Your task to perform on an android device: toggle javascript in the chrome app Image 0: 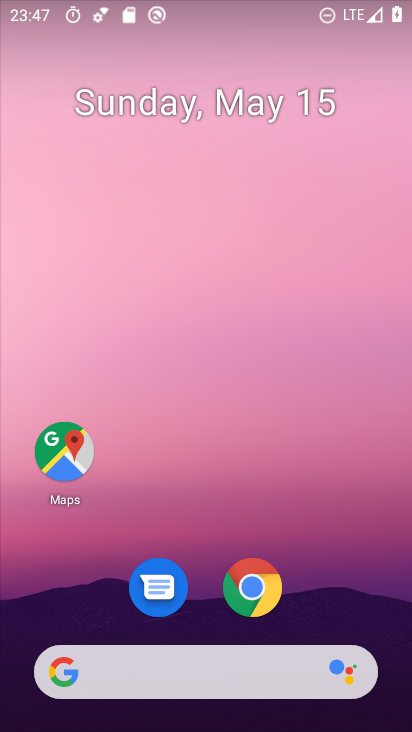
Step 0: click (241, 610)
Your task to perform on an android device: toggle javascript in the chrome app Image 1: 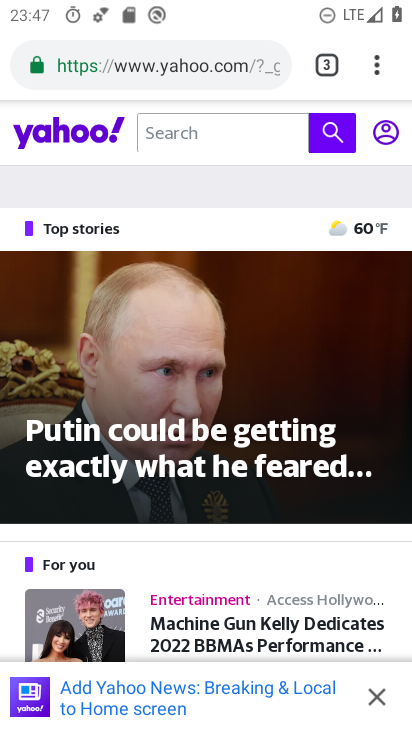
Step 1: drag from (374, 60) to (177, 621)
Your task to perform on an android device: toggle javascript in the chrome app Image 2: 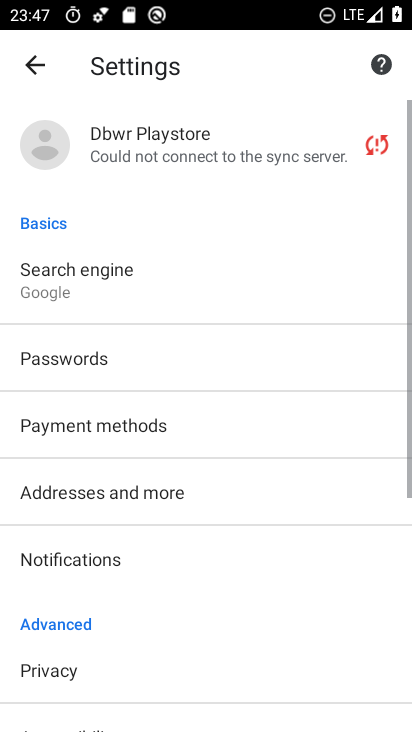
Step 2: drag from (216, 594) to (269, 263)
Your task to perform on an android device: toggle javascript in the chrome app Image 3: 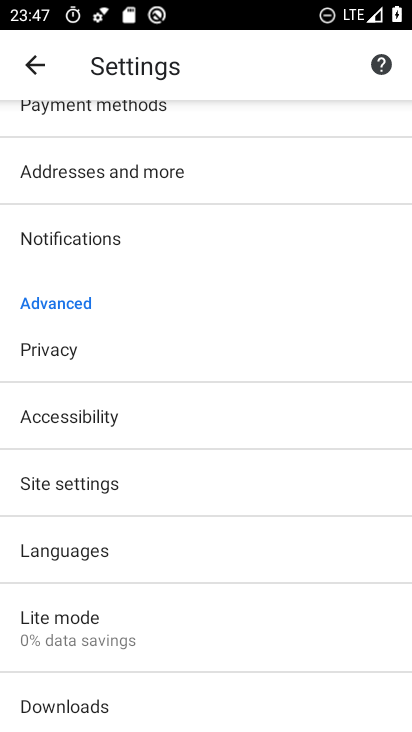
Step 3: click (99, 487)
Your task to perform on an android device: toggle javascript in the chrome app Image 4: 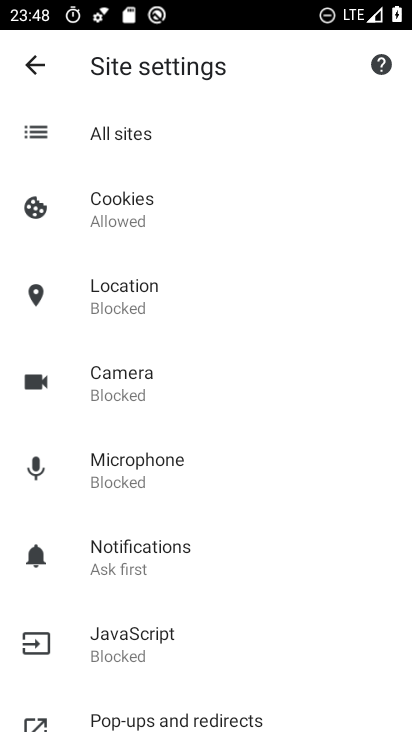
Step 4: click (131, 663)
Your task to perform on an android device: toggle javascript in the chrome app Image 5: 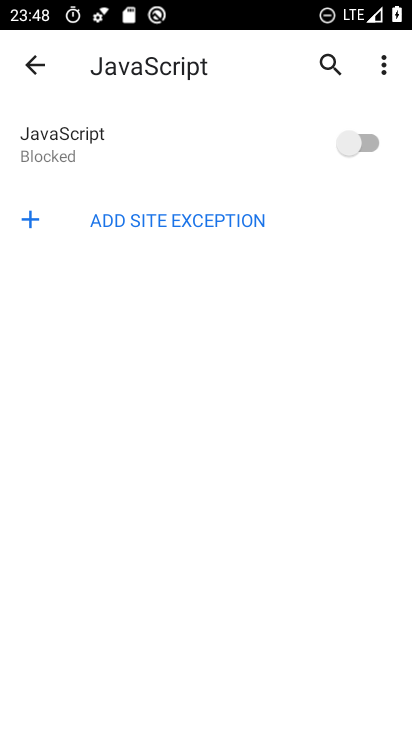
Step 5: click (361, 131)
Your task to perform on an android device: toggle javascript in the chrome app Image 6: 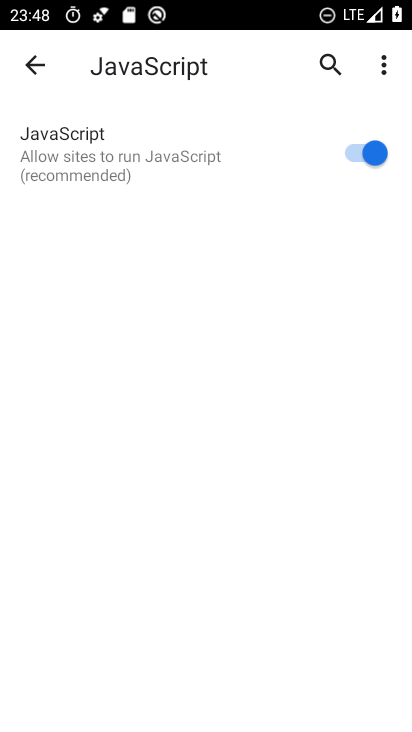
Step 6: task complete